Your task to perform on an android device: toggle pop-ups in chrome Image 0: 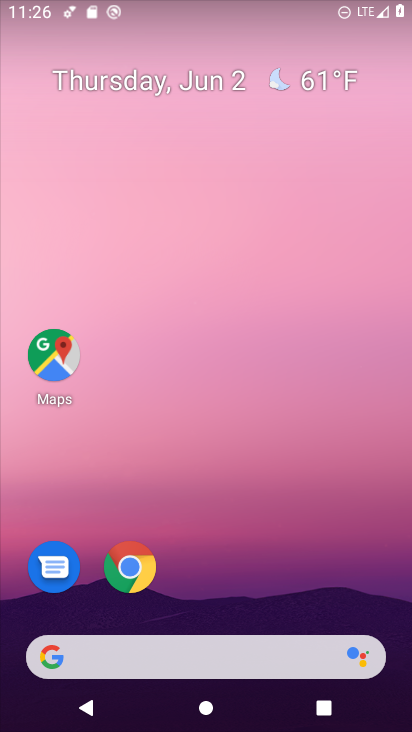
Step 0: press home button
Your task to perform on an android device: toggle pop-ups in chrome Image 1: 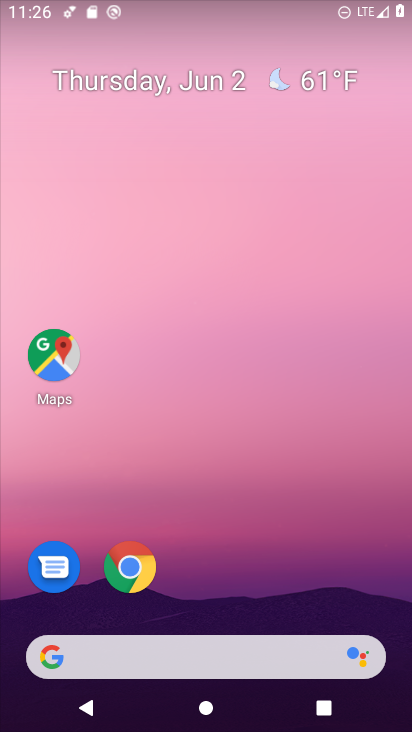
Step 1: drag from (275, 423) to (289, 87)
Your task to perform on an android device: toggle pop-ups in chrome Image 2: 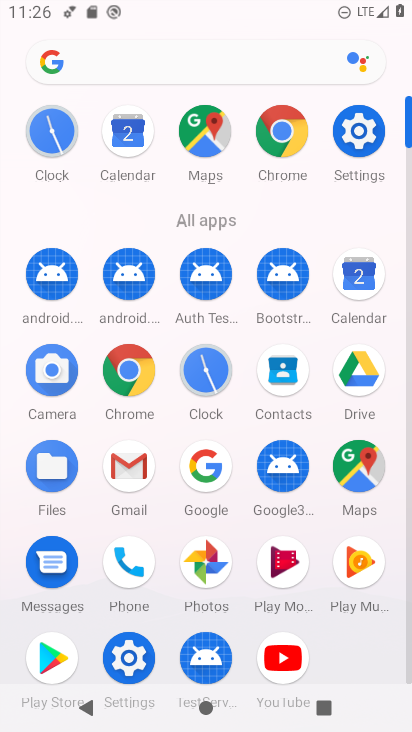
Step 2: click (364, 110)
Your task to perform on an android device: toggle pop-ups in chrome Image 3: 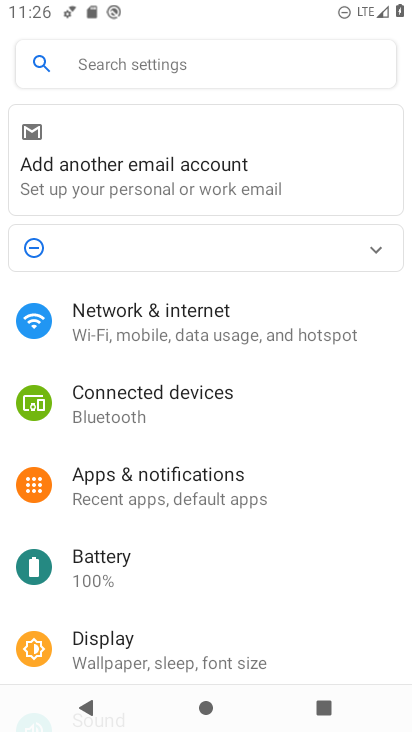
Step 3: drag from (251, 617) to (255, 201)
Your task to perform on an android device: toggle pop-ups in chrome Image 4: 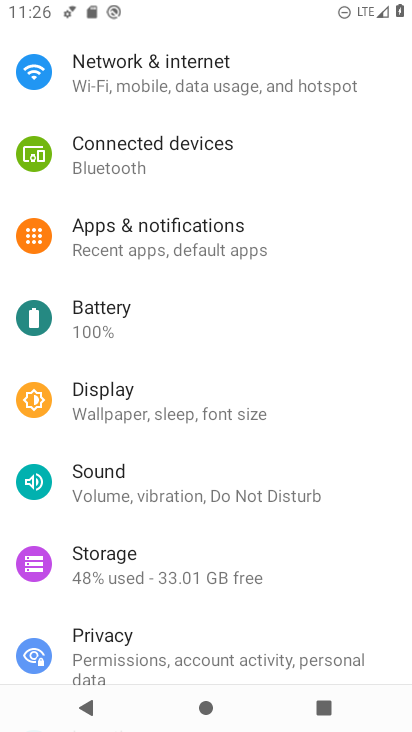
Step 4: press home button
Your task to perform on an android device: toggle pop-ups in chrome Image 5: 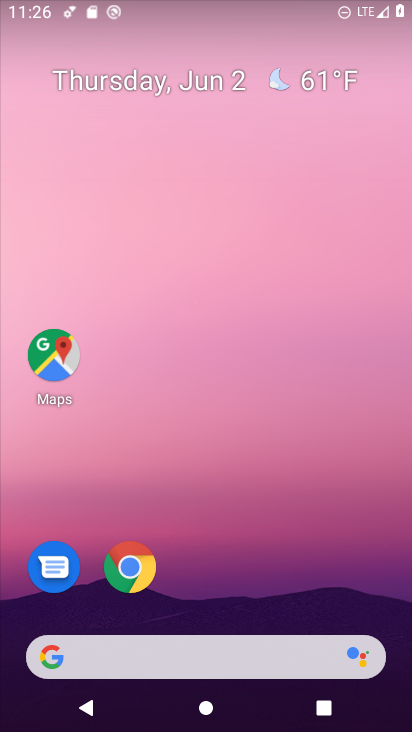
Step 5: click (127, 562)
Your task to perform on an android device: toggle pop-ups in chrome Image 6: 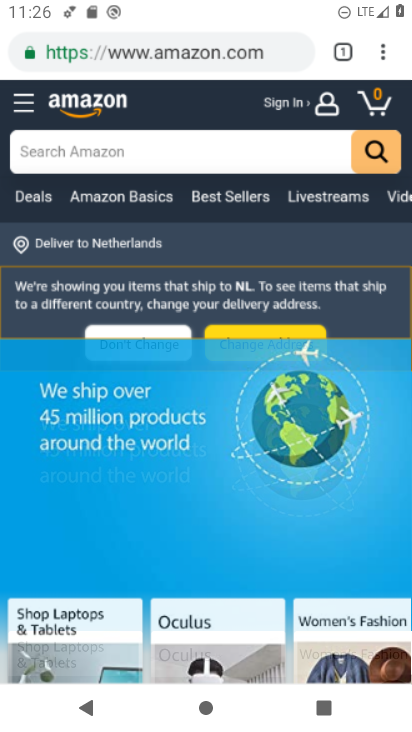
Step 6: drag from (382, 48) to (267, 589)
Your task to perform on an android device: toggle pop-ups in chrome Image 7: 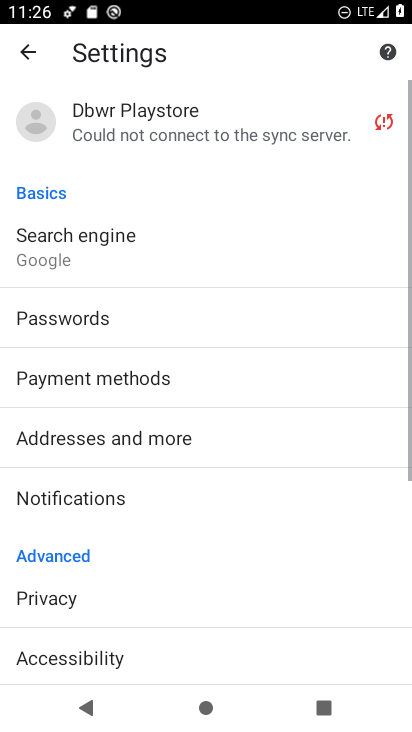
Step 7: drag from (265, 579) to (259, 155)
Your task to perform on an android device: toggle pop-ups in chrome Image 8: 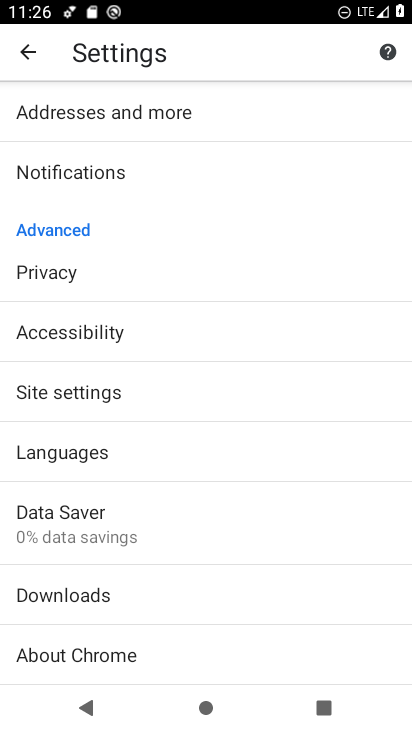
Step 8: click (125, 390)
Your task to perform on an android device: toggle pop-ups in chrome Image 9: 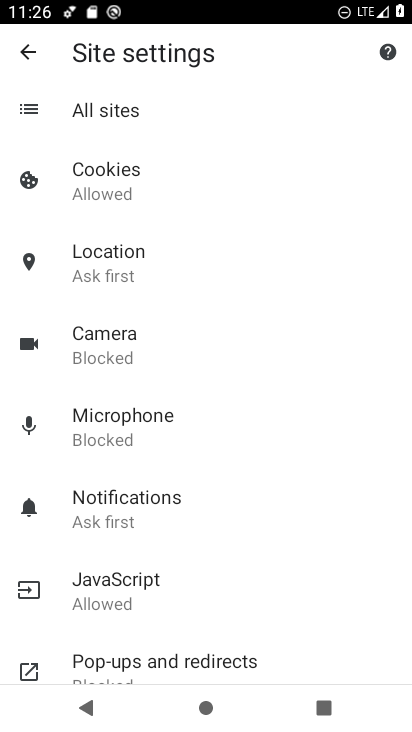
Step 9: click (154, 660)
Your task to perform on an android device: toggle pop-ups in chrome Image 10: 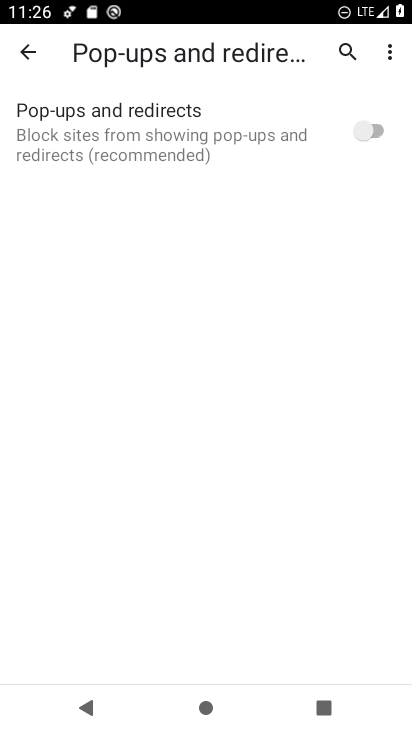
Step 10: click (348, 124)
Your task to perform on an android device: toggle pop-ups in chrome Image 11: 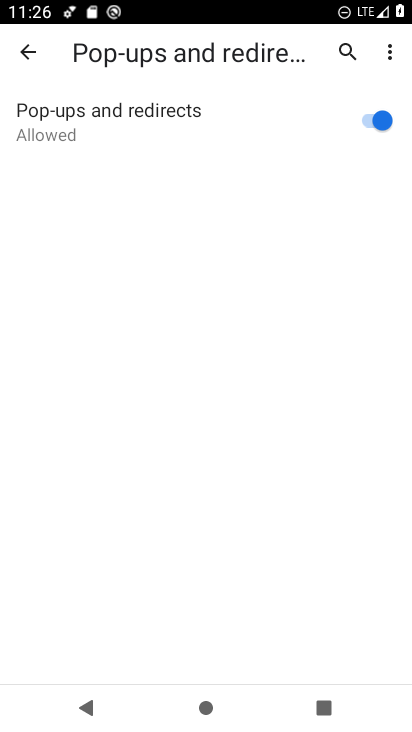
Step 11: task complete